Your task to perform on an android device: Open Google Chrome and open the bookmarks view Image 0: 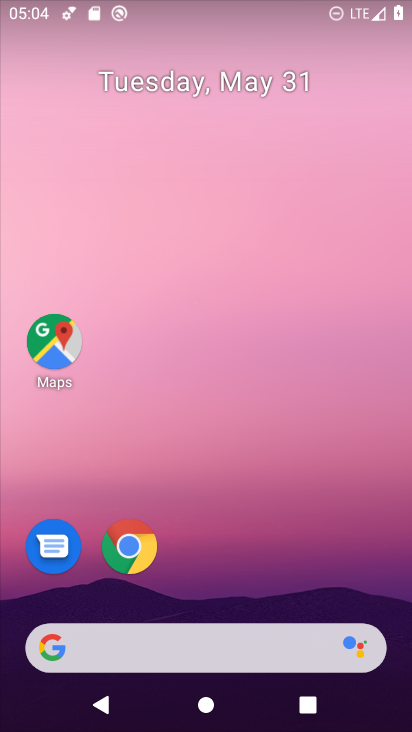
Step 0: drag from (193, 579) to (229, 139)
Your task to perform on an android device: Open Google Chrome and open the bookmarks view Image 1: 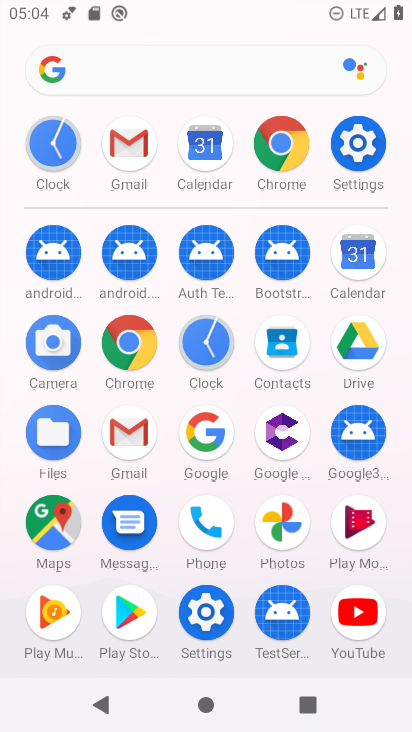
Step 1: click (124, 348)
Your task to perform on an android device: Open Google Chrome and open the bookmarks view Image 2: 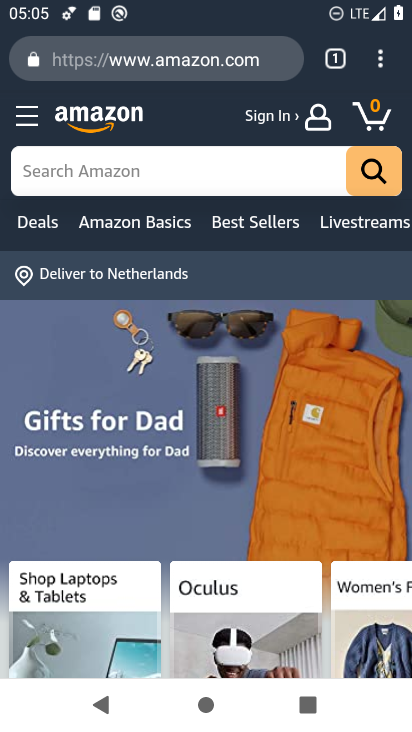
Step 2: click (385, 59)
Your task to perform on an android device: Open Google Chrome and open the bookmarks view Image 3: 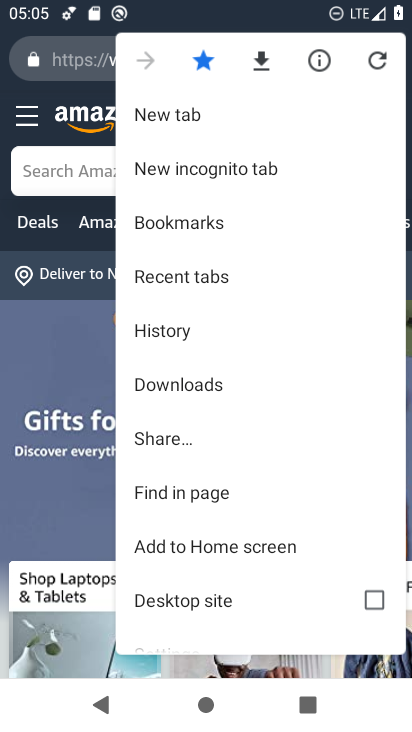
Step 3: click (168, 225)
Your task to perform on an android device: Open Google Chrome and open the bookmarks view Image 4: 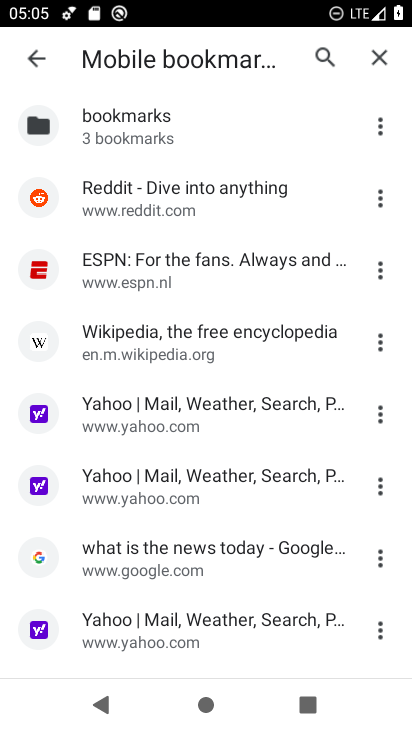
Step 4: task complete